Your task to perform on an android device: turn on the 12-hour format for clock Image 0: 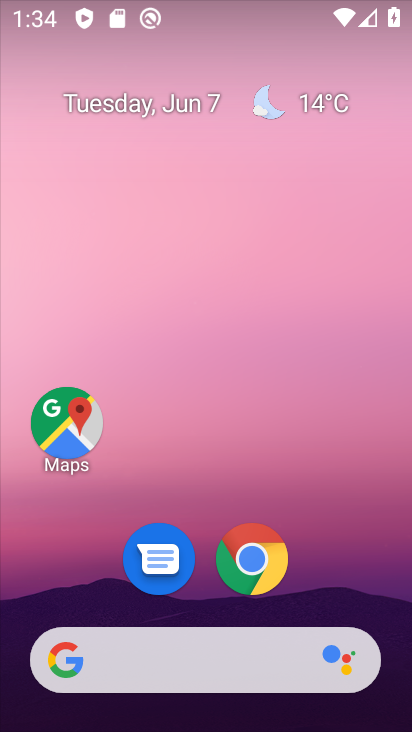
Step 0: drag from (285, 521) to (213, 62)
Your task to perform on an android device: turn on the 12-hour format for clock Image 1: 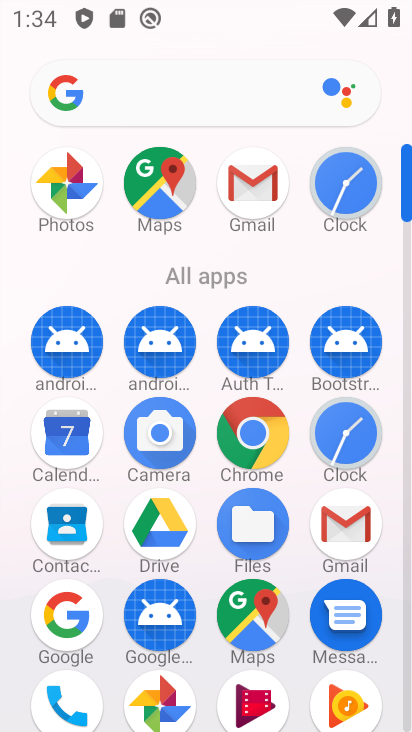
Step 1: drag from (15, 543) to (15, 222)
Your task to perform on an android device: turn on the 12-hour format for clock Image 2: 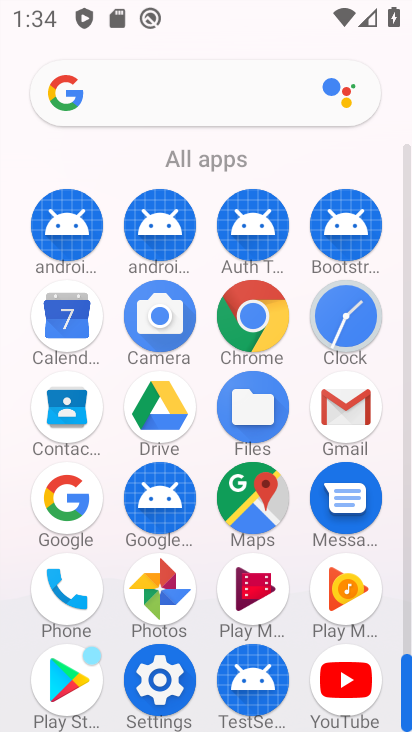
Step 2: click (344, 312)
Your task to perform on an android device: turn on the 12-hour format for clock Image 3: 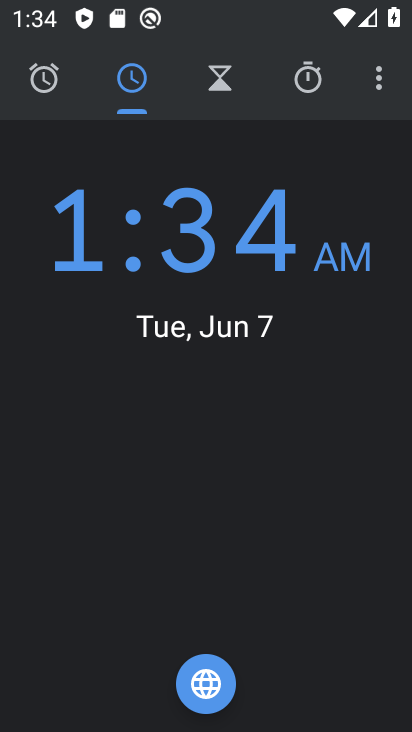
Step 3: drag from (375, 72) to (308, 155)
Your task to perform on an android device: turn on the 12-hour format for clock Image 4: 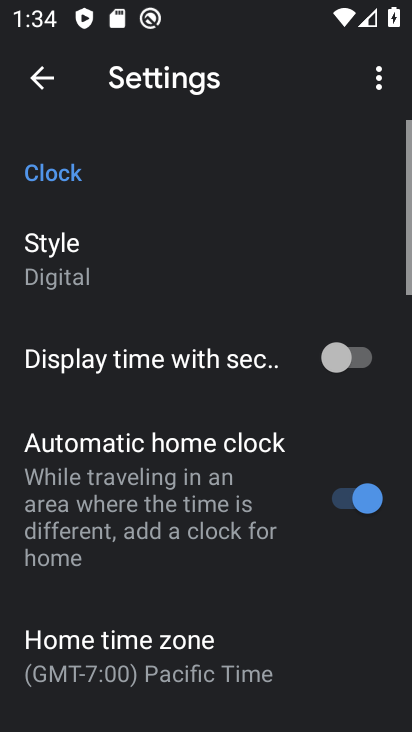
Step 4: drag from (162, 540) to (189, 219)
Your task to perform on an android device: turn on the 12-hour format for clock Image 5: 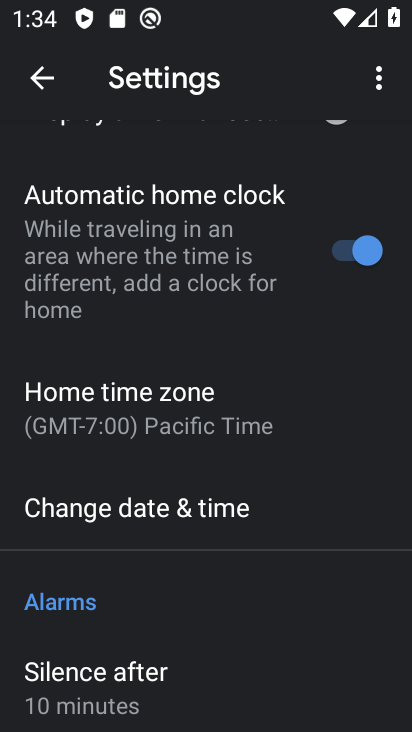
Step 5: click (189, 491)
Your task to perform on an android device: turn on the 12-hour format for clock Image 6: 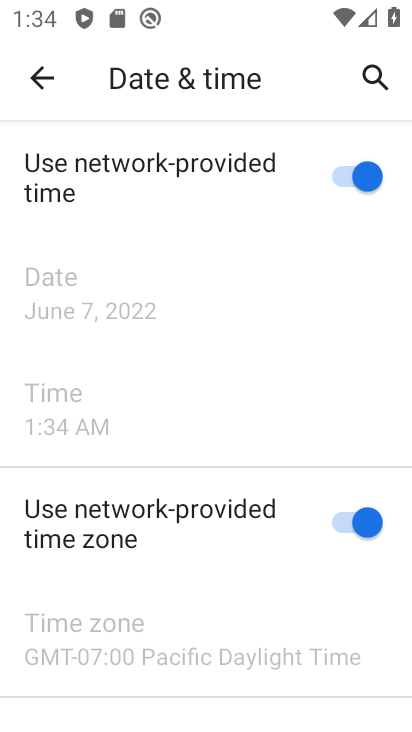
Step 6: task complete